Your task to perform on an android device: delete the emails in spam in the gmail app Image 0: 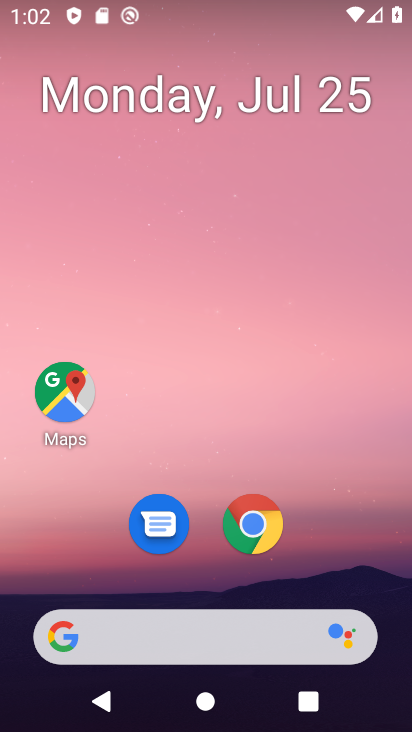
Step 0: drag from (220, 639) to (409, 160)
Your task to perform on an android device: delete the emails in spam in the gmail app Image 1: 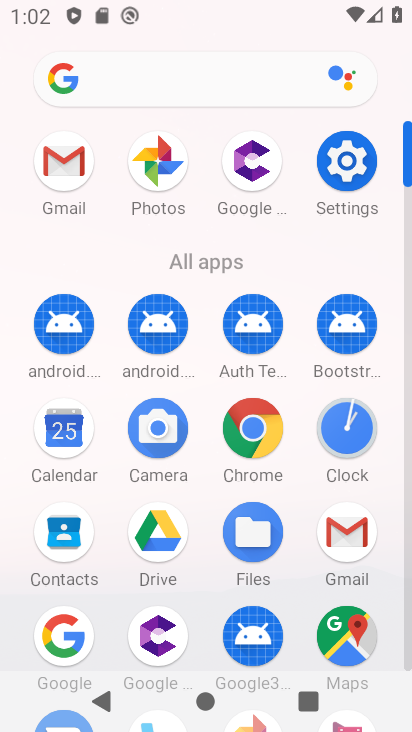
Step 1: click (59, 159)
Your task to perform on an android device: delete the emails in spam in the gmail app Image 2: 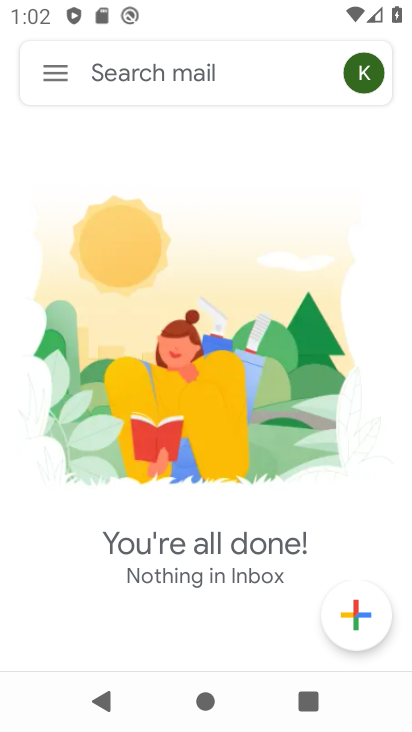
Step 2: click (54, 66)
Your task to perform on an android device: delete the emails in spam in the gmail app Image 3: 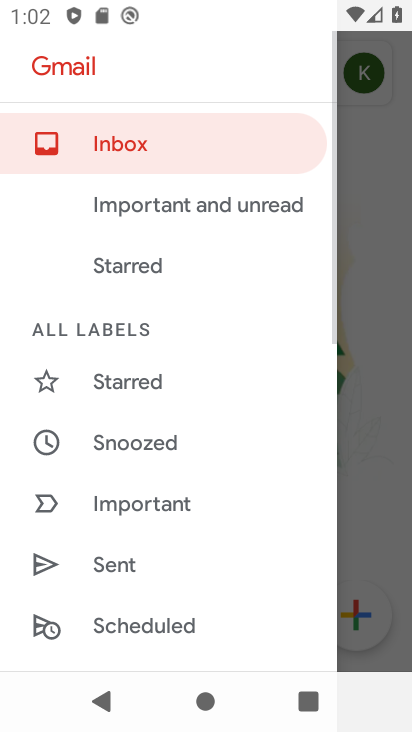
Step 3: drag from (187, 514) to (318, 89)
Your task to perform on an android device: delete the emails in spam in the gmail app Image 4: 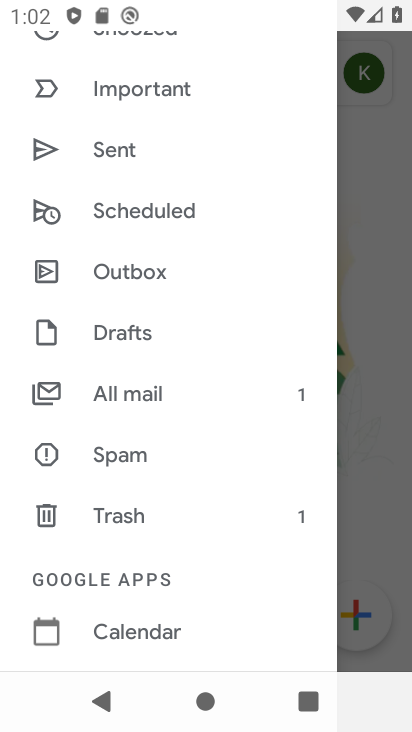
Step 4: click (139, 461)
Your task to perform on an android device: delete the emails in spam in the gmail app Image 5: 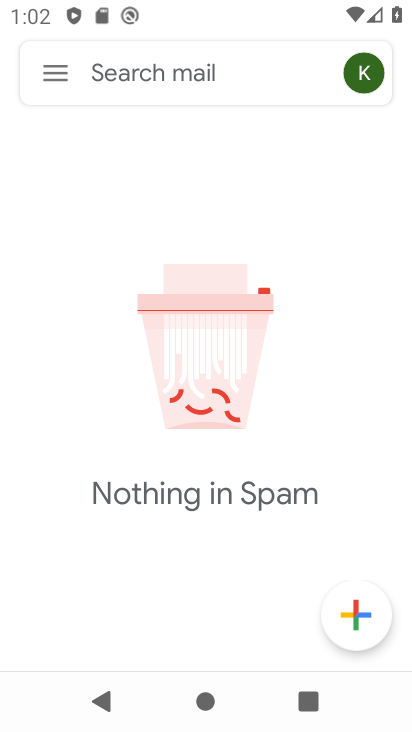
Step 5: task complete